Your task to perform on an android device: check the backup settings in the google photos Image 0: 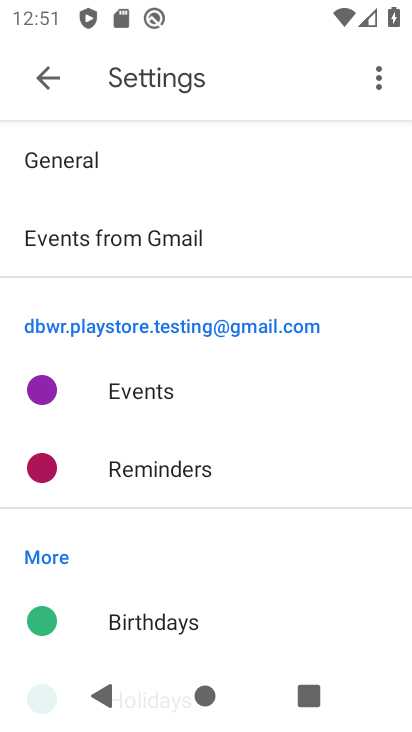
Step 0: press home button
Your task to perform on an android device: check the backup settings in the google photos Image 1: 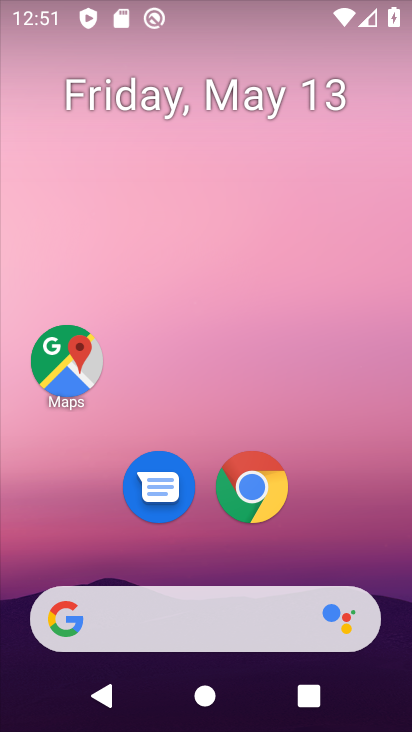
Step 1: drag from (378, 514) to (329, 78)
Your task to perform on an android device: check the backup settings in the google photos Image 2: 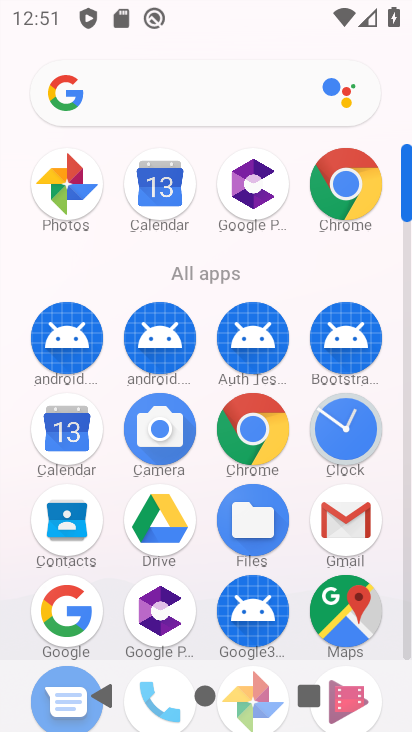
Step 2: drag from (302, 642) to (314, 478)
Your task to perform on an android device: check the backup settings in the google photos Image 3: 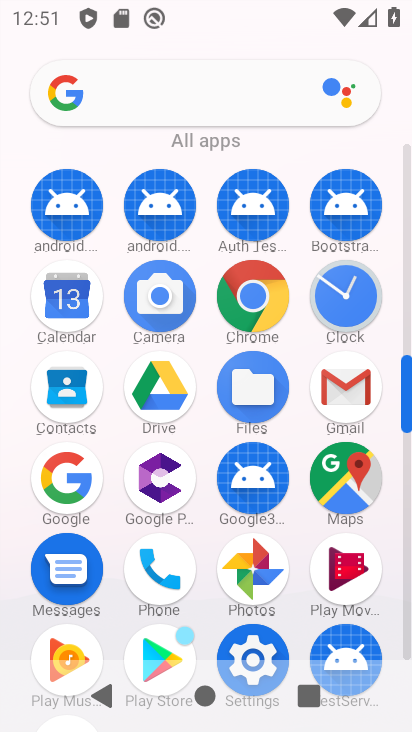
Step 3: click (257, 551)
Your task to perform on an android device: check the backup settings in the google photos Image 4: 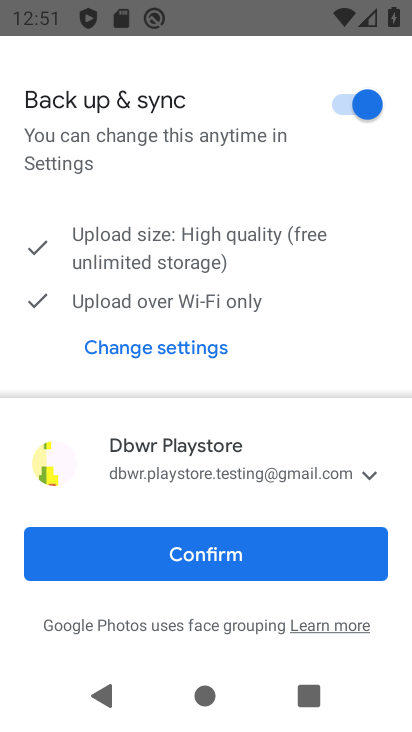
Step 4: click (257, 551)
Your task to perform on an android device: check the backup settings in the google photos Image 5: 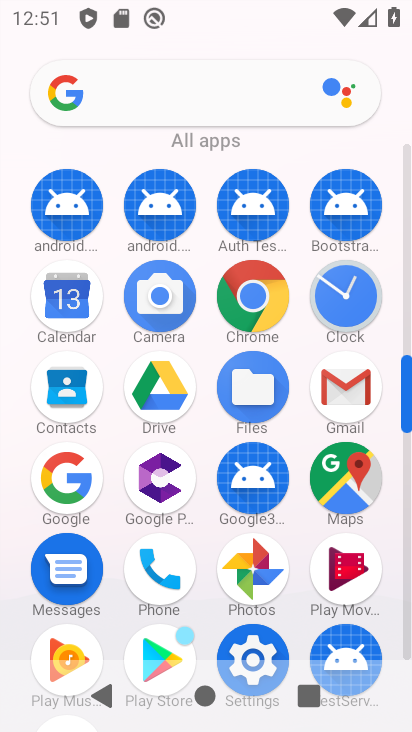
Step 5: click (254, 571)
Your task to perform on an android device: check the backup settings in the google photos Image 6: 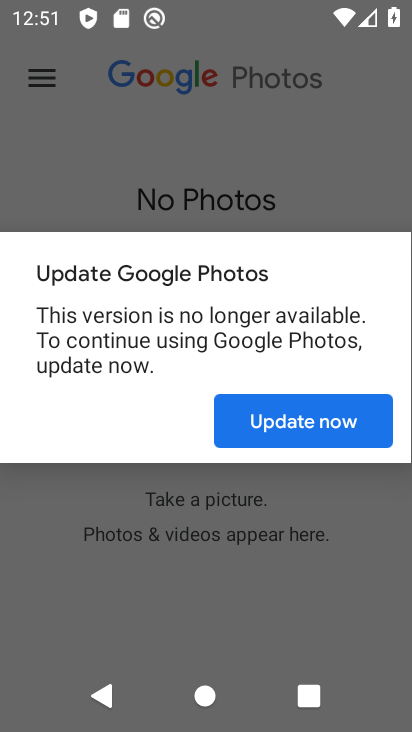
Step 6: click (295, 430)
Your task to perform on an android device: check the backup settings in the google photos Image 7: 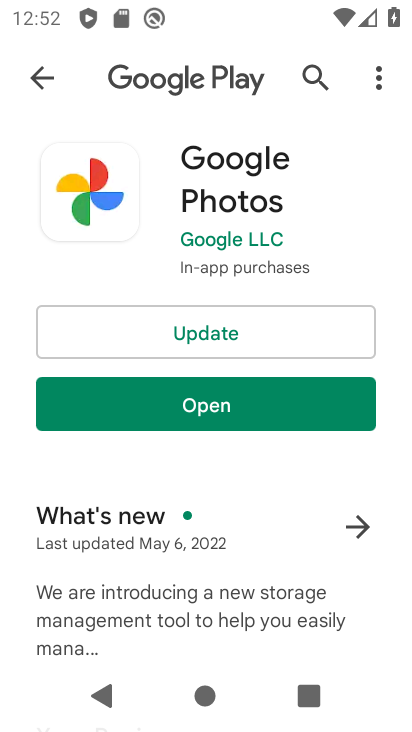
Step 7: click (241, 347)
Your task to perform on an android device: check the backup settings in the google photos Image 8: 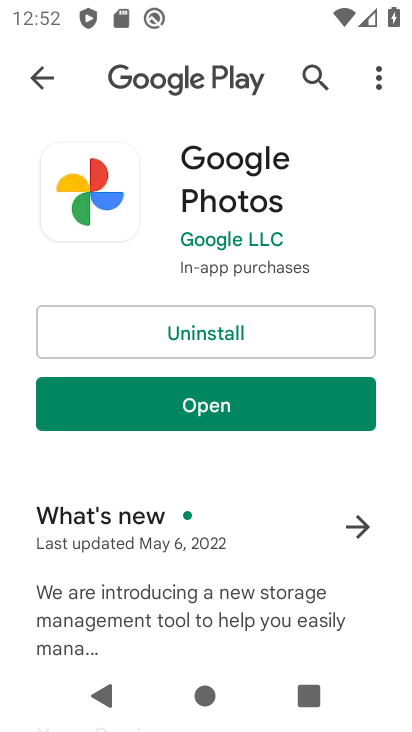
Step 8: click (286, 403)
Your task to perform on an android device: check the backup settings in the google photos Image 9: 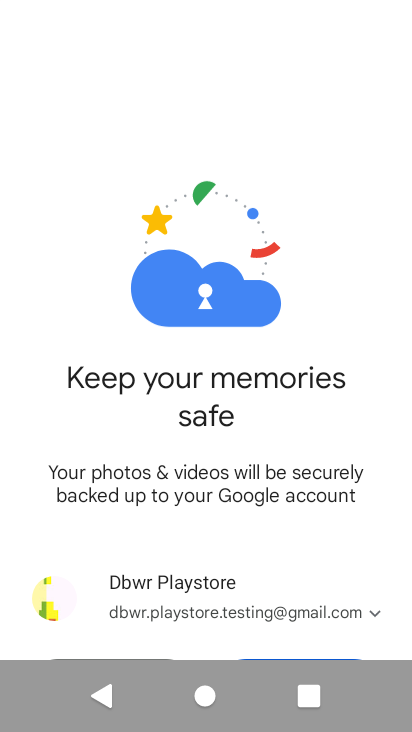
Step 9: drag from (286, 578) to (305, 296)
Your task to perform on an android device: check the backup settings in the google photos Image 10: 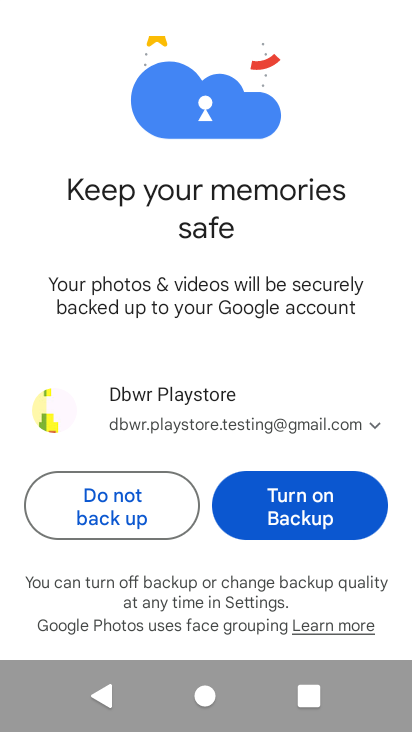
Step 10: click (130, 519)
Your task to perform on an android device: check the backup settings in the google photos Image 11: 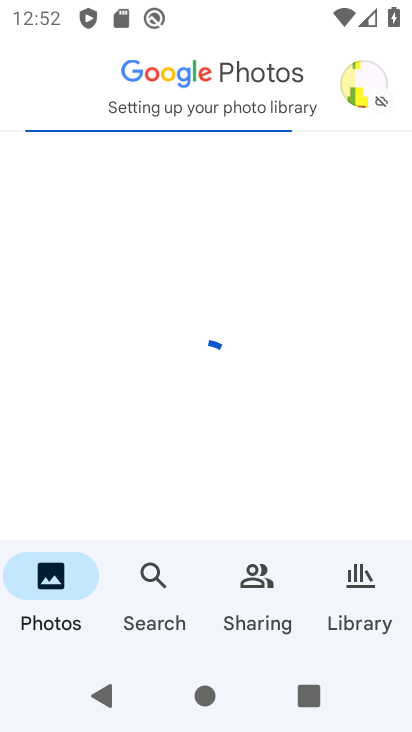
Step 11: click (368, 76)
Your task to perform on an android device: check the backup settings in the google photos Image 12: 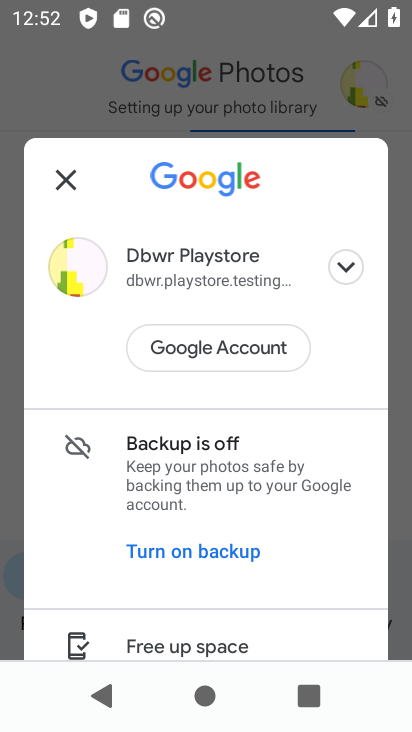
Step 12: drag from (144, 581) to (149, 272)
Your task to perform on an android device: check the backup settings in the google photos Image 13: 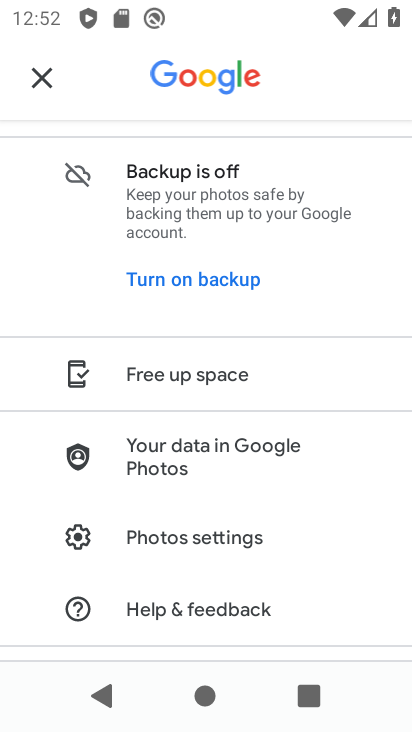
Step 13: click (142, 542)
Your task to perform on an android device: check the backup settings in the google photos Image 14: 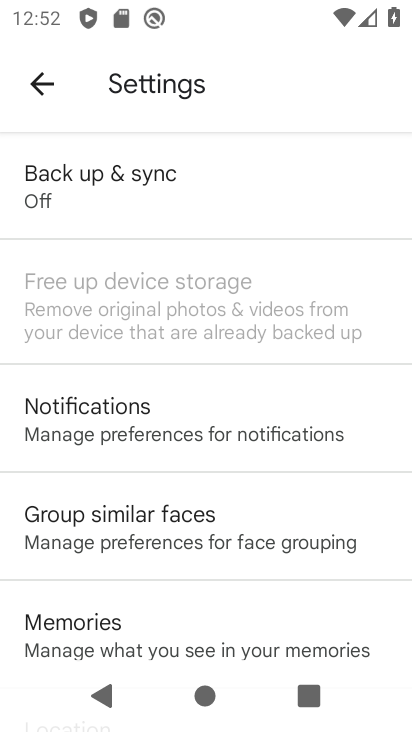
Step 14: click (106, 195)
Your task to perform on an android device: check the backup settings in the google photos Image 15: 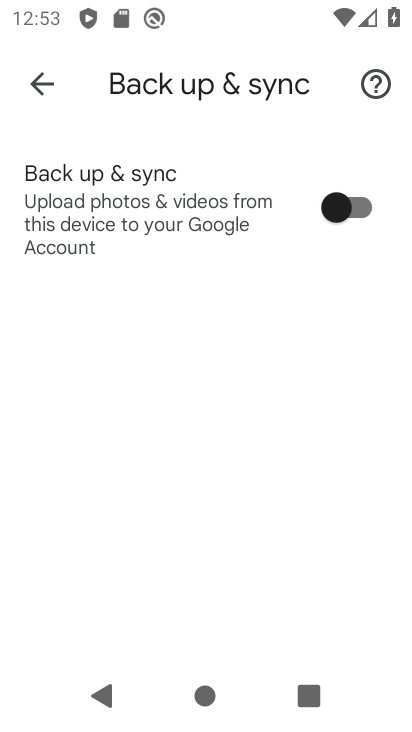
Step 15: task complete